Your task to perform on an android device: empty trash in google photos Image 0: 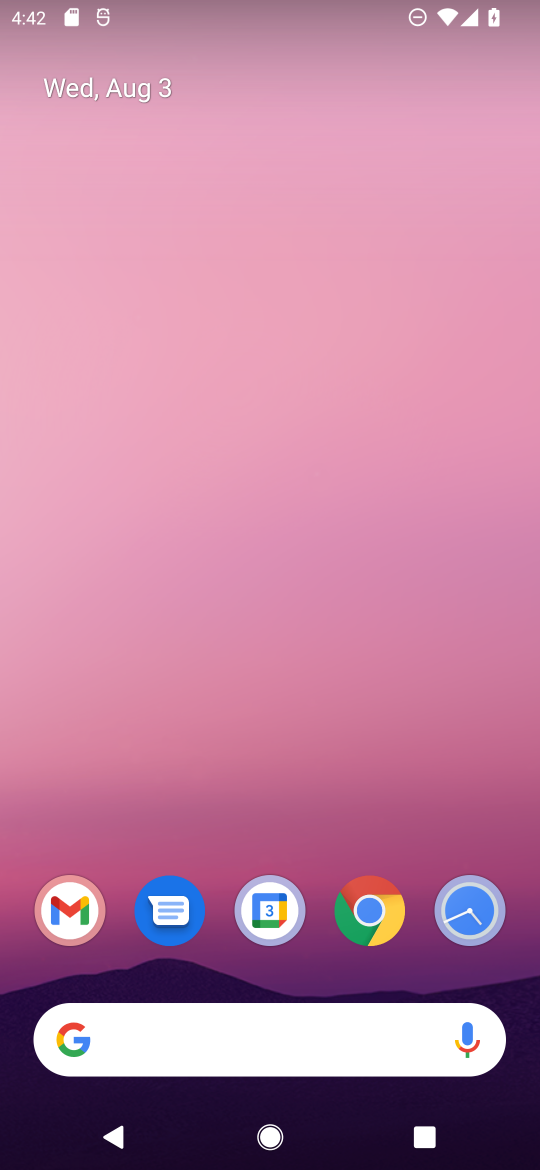
Step 0: drag from (96, 886) to (222, 166)
Your task to perform on an android device: empty trash in google photos Image 1: 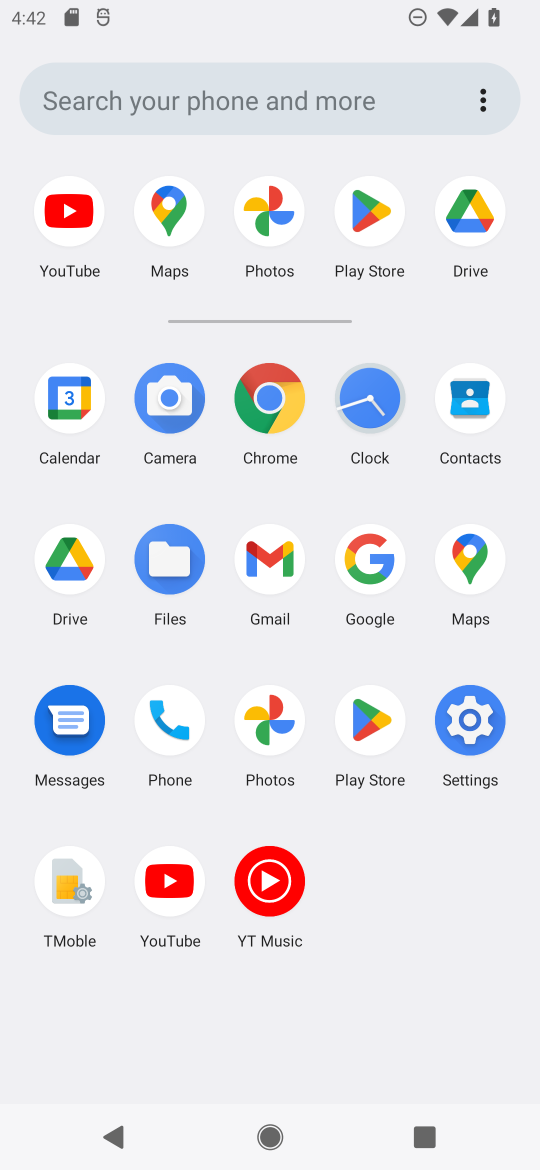
Step 1: click (278, 715)
Your task to perform on an android device: empty trash in google photos Image 2: 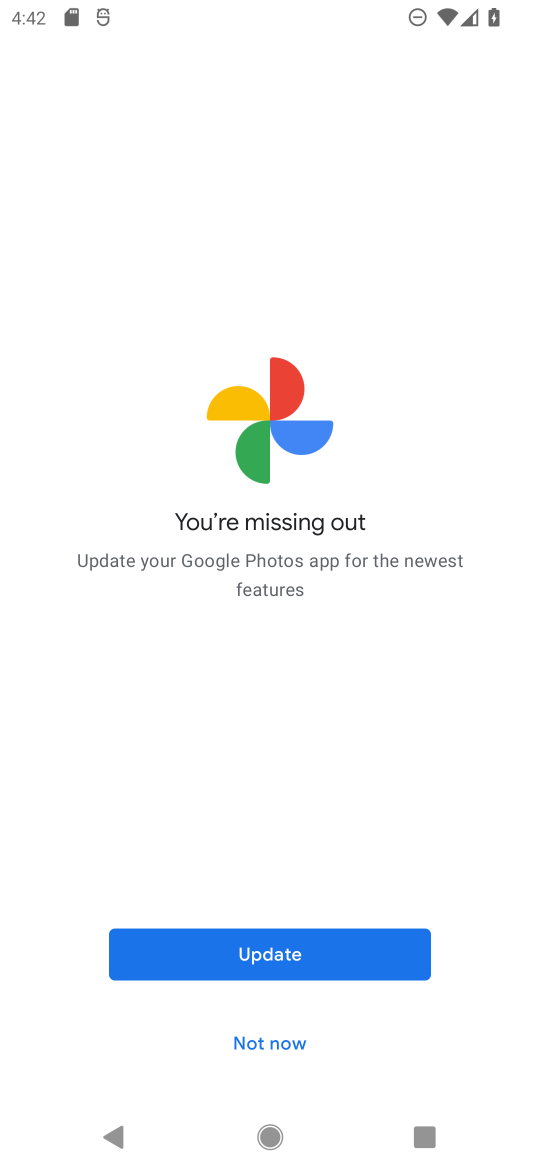
Step 2: click (238, 1035)
Your task to perform on an android device: empty trash in google photos Image 3: 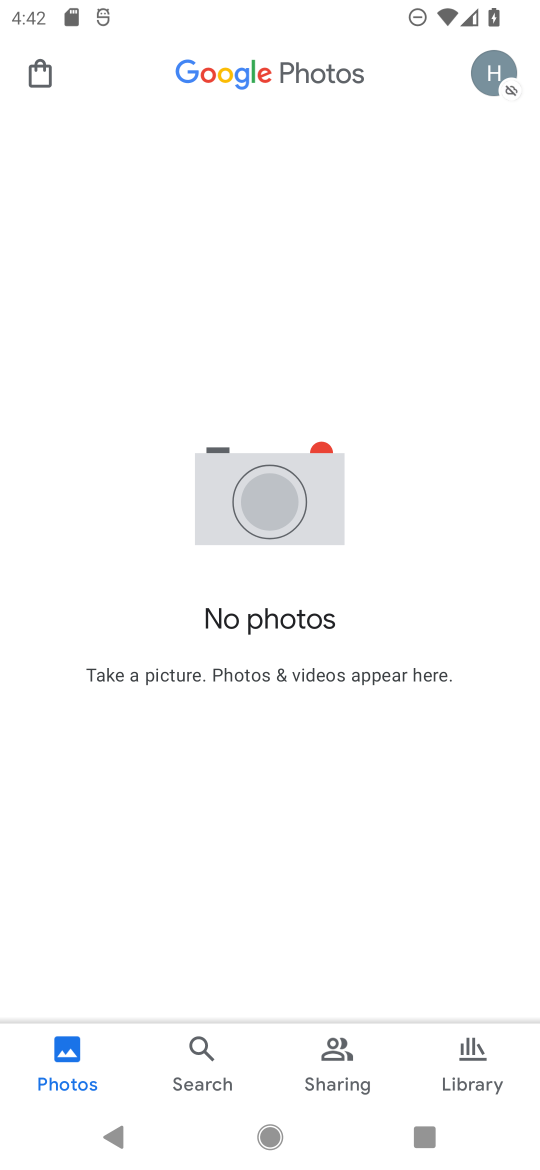
Step 3: click (51, 76)
Your task to perform on an android device: empty trash in google photos Image 4: 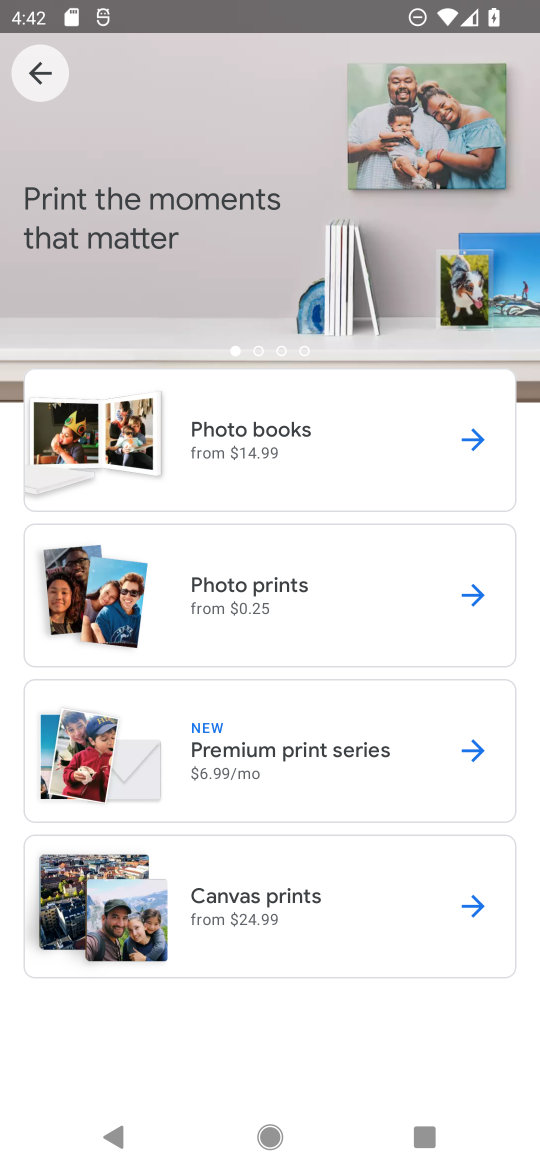
Step 4: task complete